Your task to perform on an android device: check android version Image 0: 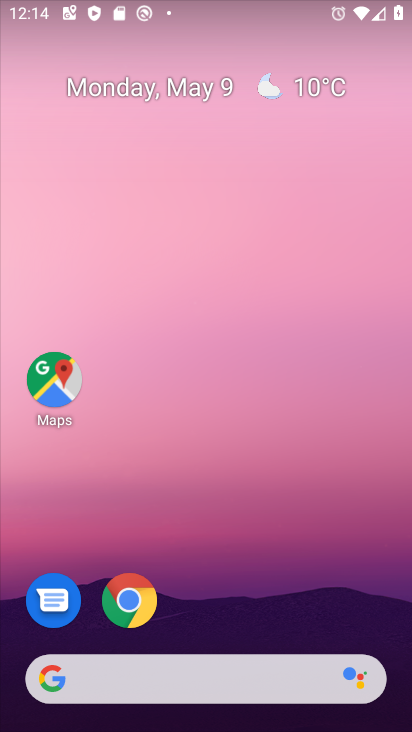
Step 0: drag from (206, 573) to (248, 187)
Your task to perform on an android device: check android version Image 1: 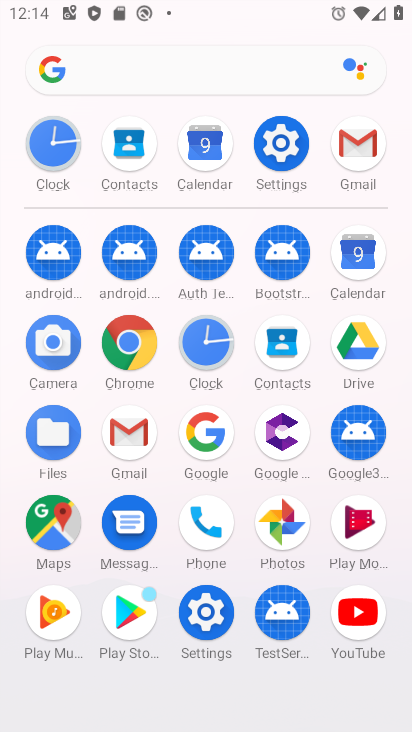
Step 1: click (199, 615)
Your task to perform on an android device: check android version Image 2: 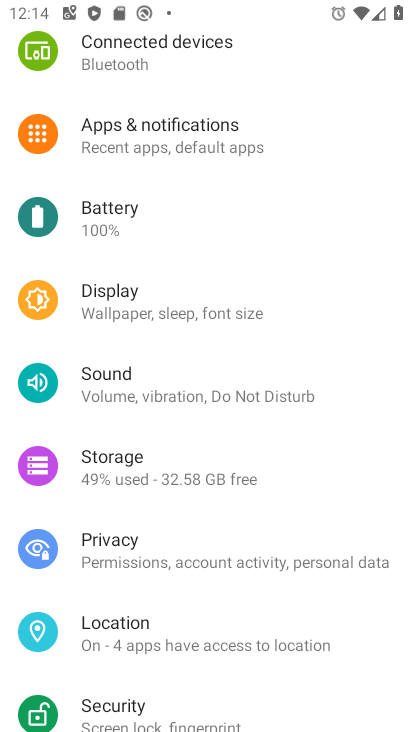
Step 2: drag from (174, 644) to (206, 169)
Your task to perform on an android device: check android version Image 3: 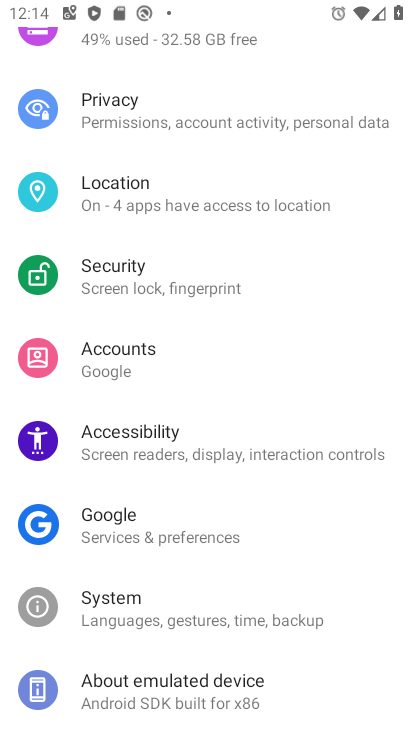
Step 3: drag from (156, 655) to (243, 255)
Your task to perform on an android device: check android version Image 4: 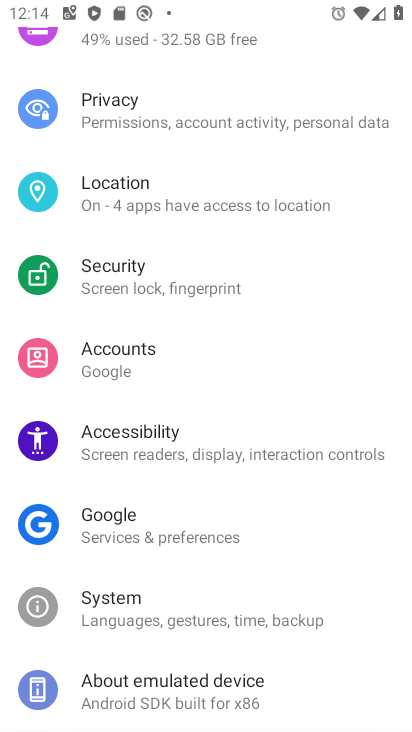
Step 4: click (171, 696)
Your task to perform on an android device: check android version Image 5: 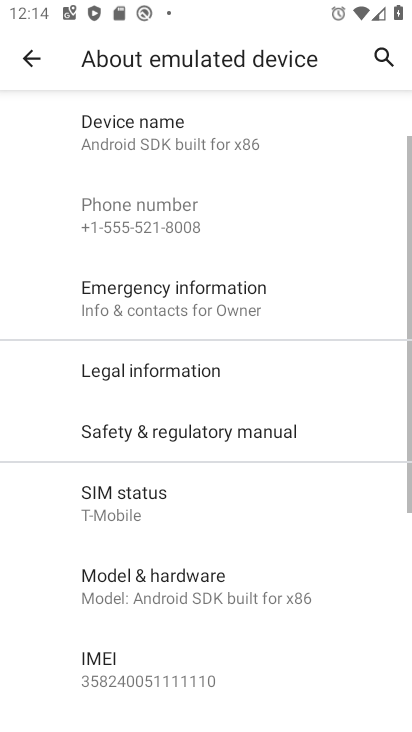
Step 5: drag from (151, 617) to (212, 254)
Your task to perform on an android device: check android version Image 6: 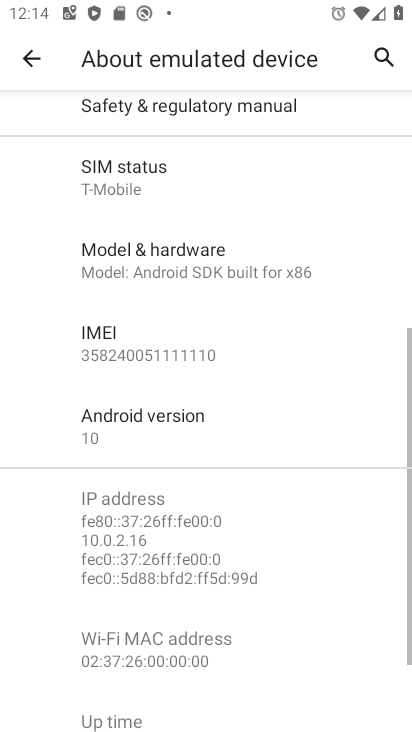
Step 6: click (127, 418)
Your task to perform on an android device: check android version Image 7: 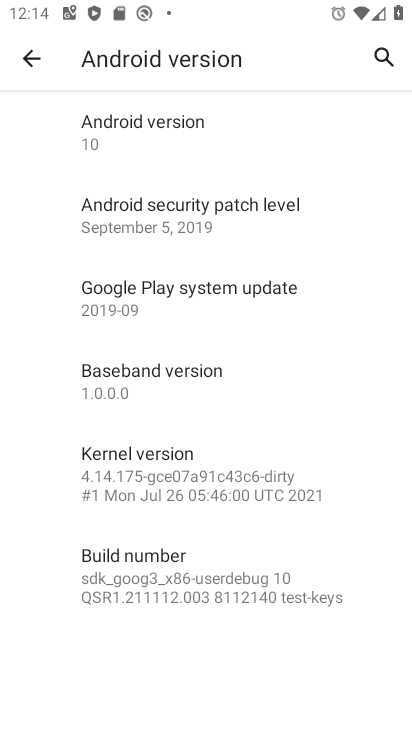
Step 7: task complete